Your task to perform on an android device: Search for "sony triple a" on target.com, select the first entry, add it to the cart, then select checkout. Image 0: 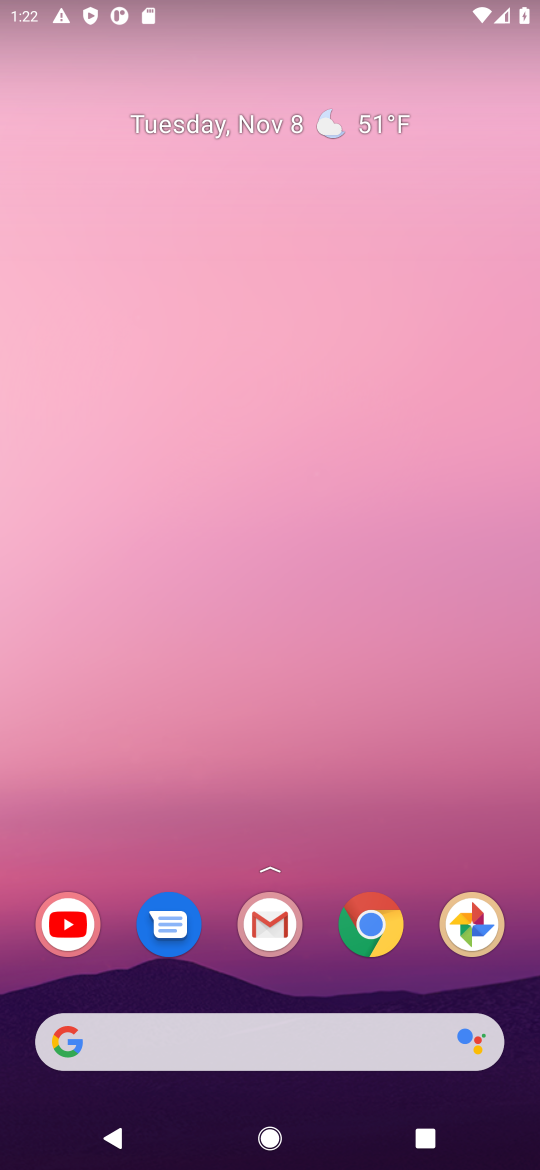
Step 0: click (375, 922)
Your task to perform on an android device: Search for "sony triple a" on target.com, select the first entry, add it to the cart, then select checkout. Image 1: 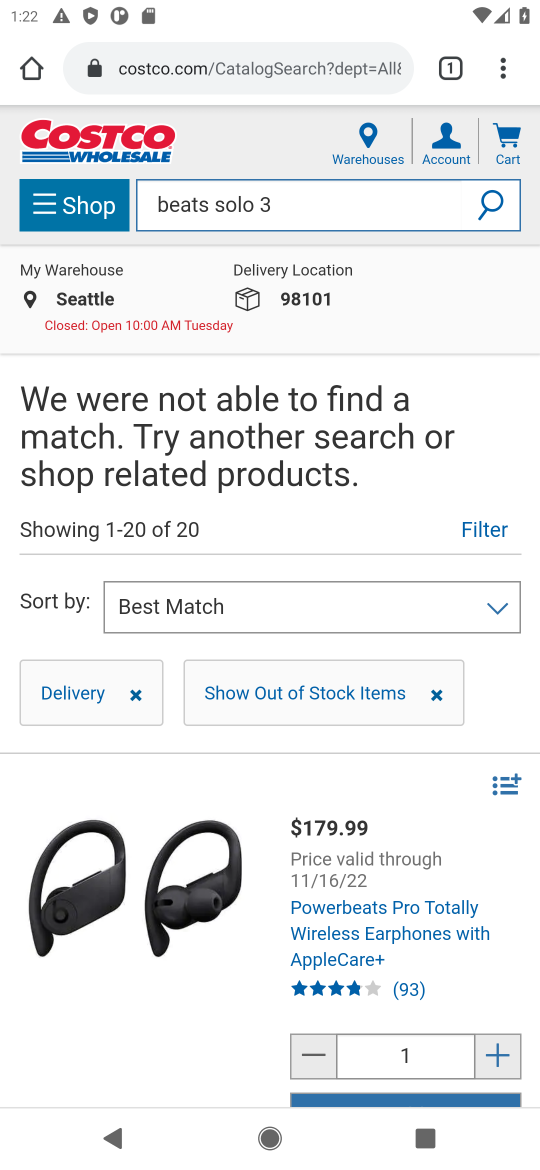
Step 1: click (182, 74)
Your task to perform on an android device: Search for "sony triple a" on target.com, select the first entry, add it to the cart, then select checkout. Image 2: 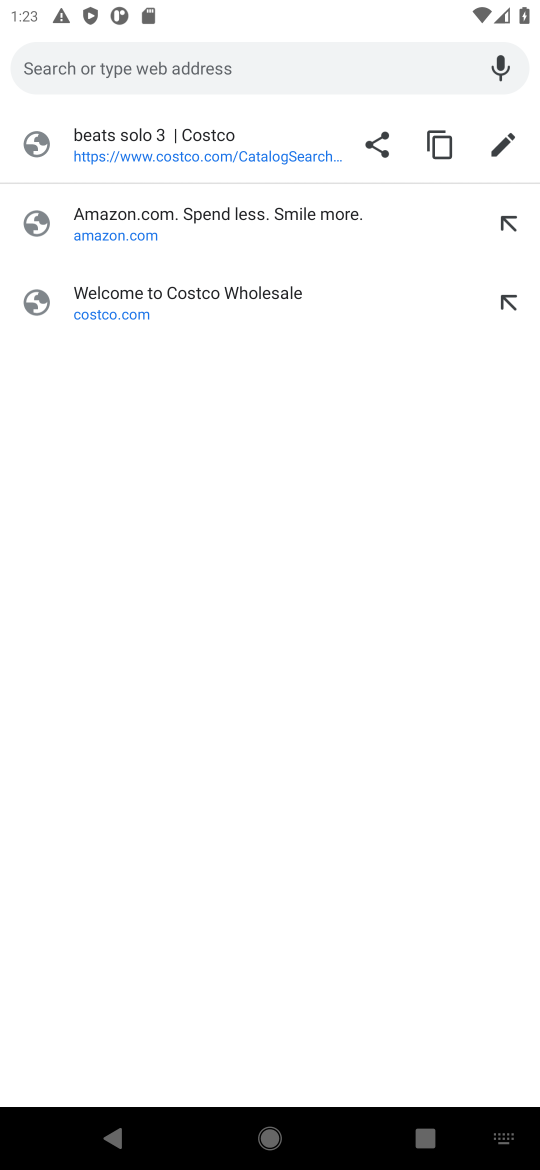
Step 2: type "target"
Your task to perform on an android device: Search for "sony triple a" on target.com, select the first entry, add it to the cart, then select checkout. Image 3: 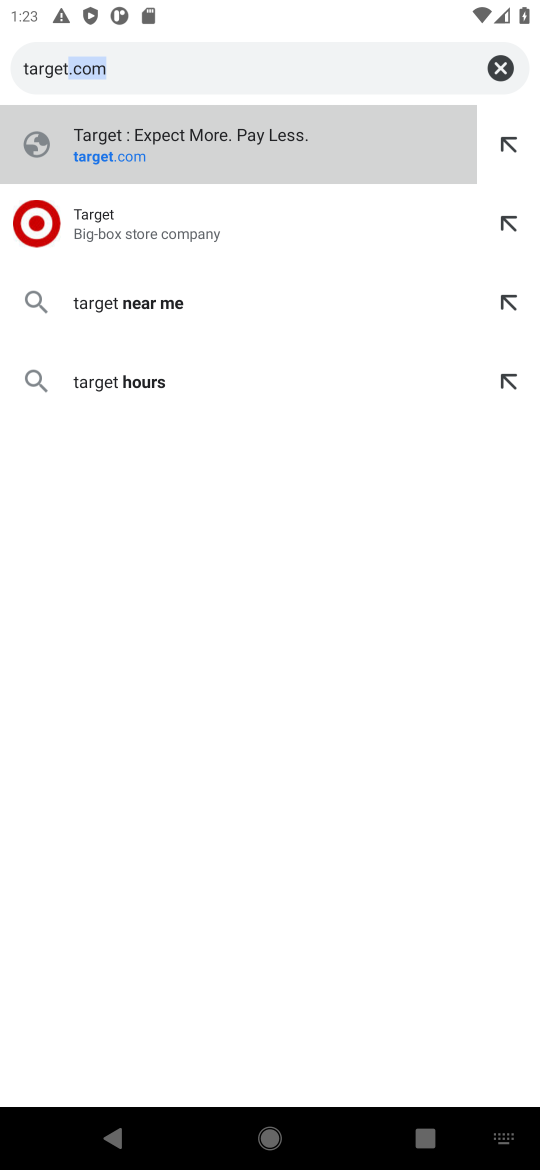
Step 3: click (111, 208)
Your task to perform on an android device: Search for "sony triple a" on target.com, select the first entry, add it to the cart, then select checkout. Image 4: 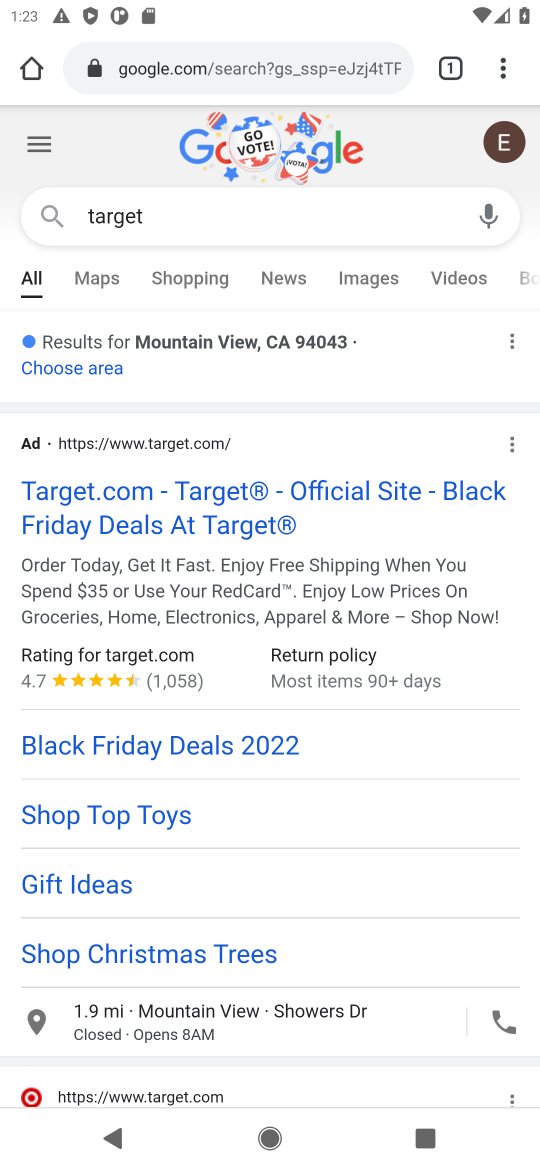
Step 4: click (285, 525)
Your task to perform on an android device: Search for "sony triple a" on target.com, select the first entry, add it to the cart, then select checkout. Image 5: 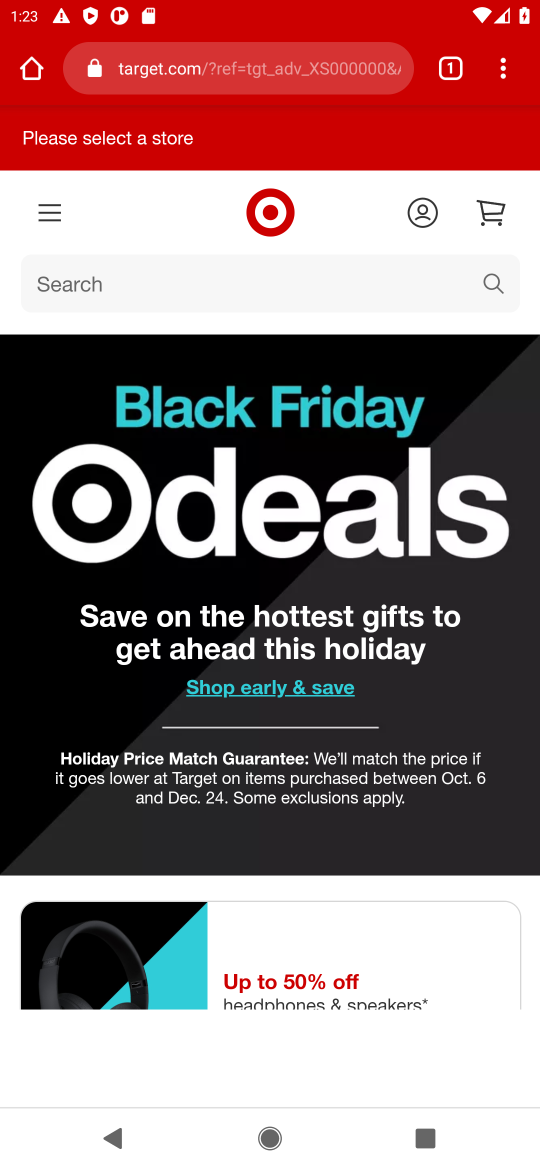
Step 5: click (234, 279)
Your task to perform on an android device: Search for "sony triple a" on target.com, select the first entry, add it to the cart, then select checkout. Image 6: 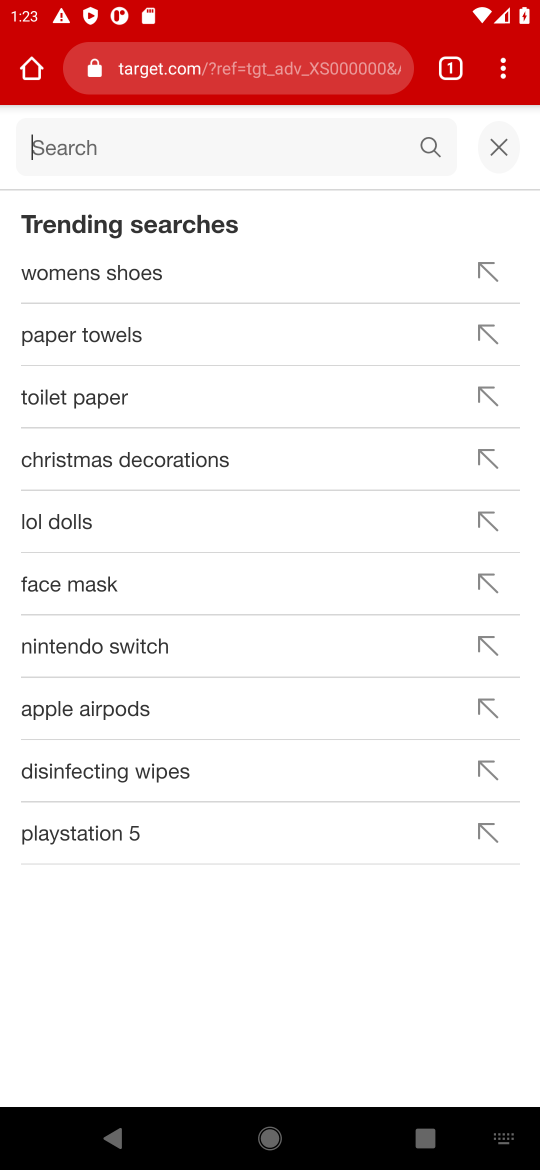
Step 6: type "sony AAA"
Your task to perform on an android device: Search for "sony triple a" on target.com, select the first entry, add it to the cart, then select checkout. Image 7: 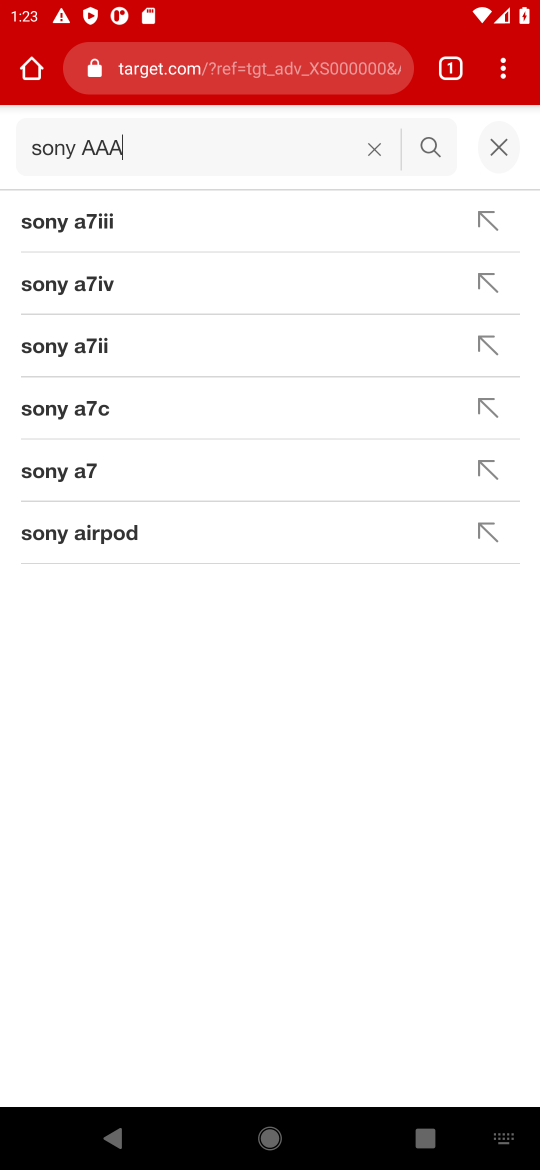
Step 7: click (438, 148)
Your task to perform on an android device: Search for "sony triple a" on target.com, select the first entry, add it to the cart, then select checkout. Image 8: 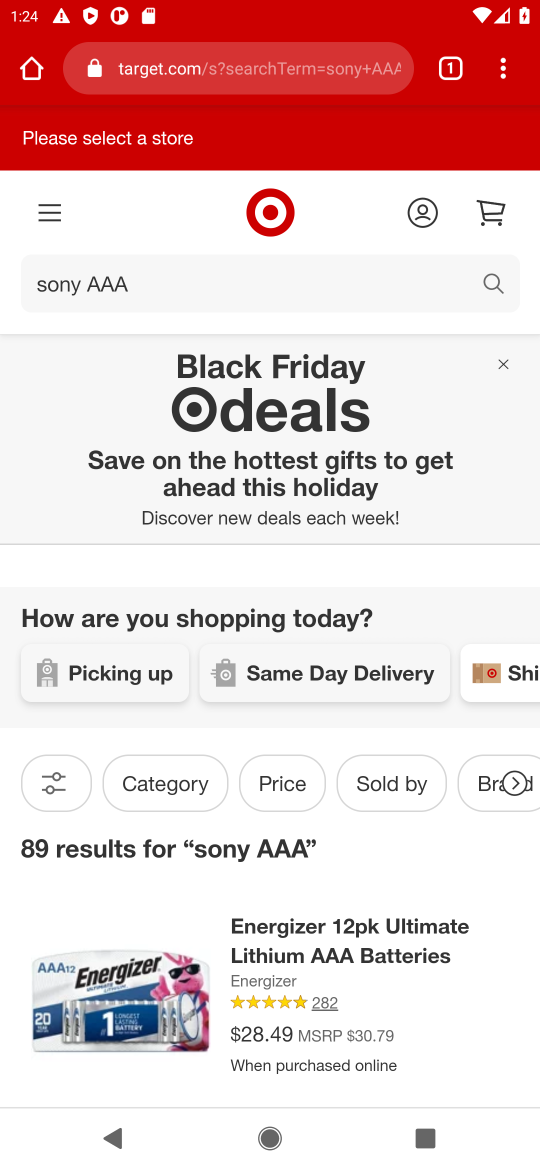
Step 8: task complete